Your task to perform on an android device: move an email to a new category in the gmail app Image 0: 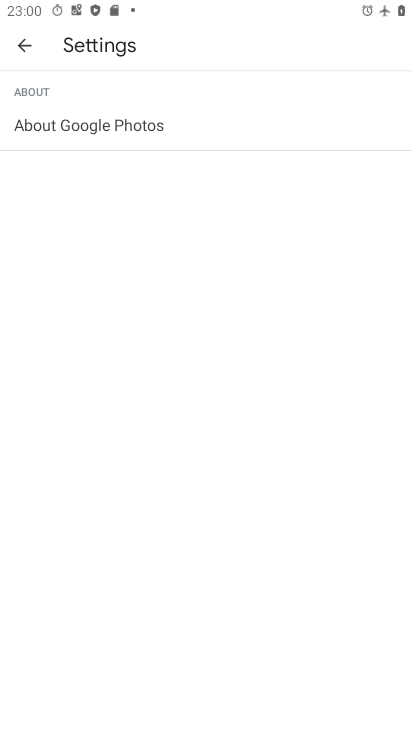
Step 0: press back button
Your task to perform on an android device: move an email to a new category in the gmail app Image 1: 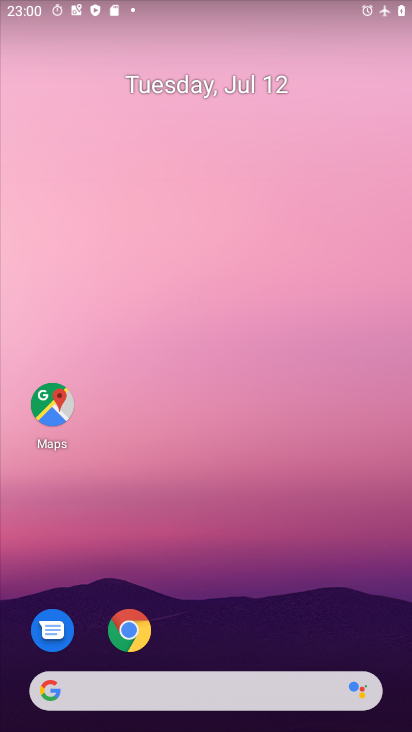
Step 1: drag from (156, 618) to (264, 39)
Your task to perform on an android device: move an email to a new category in the gmail app Image 2: 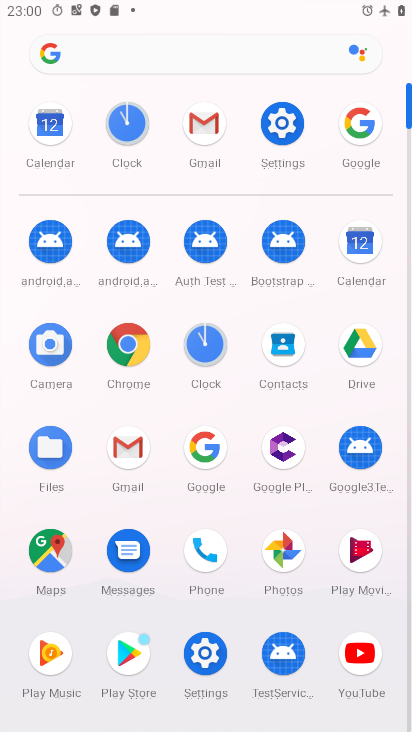
Step 2: click (212, 117)
Your task to perform on an android device: move an email to a new category in the gmail app Image 3: 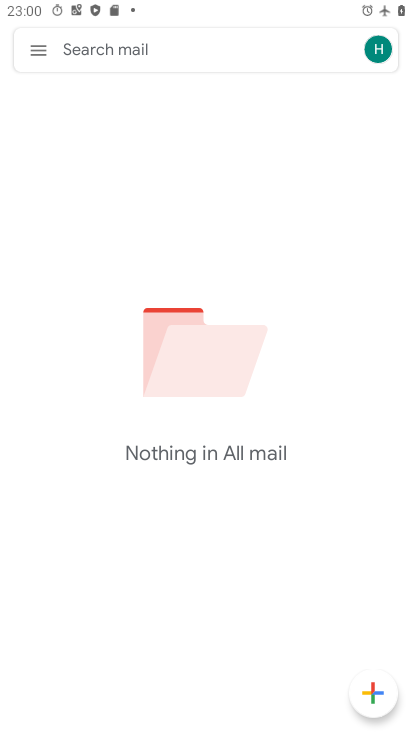
Step 3: click (38, 51)
Your task to perform on an android device: move an email to a new category in the gmail app Image 4: 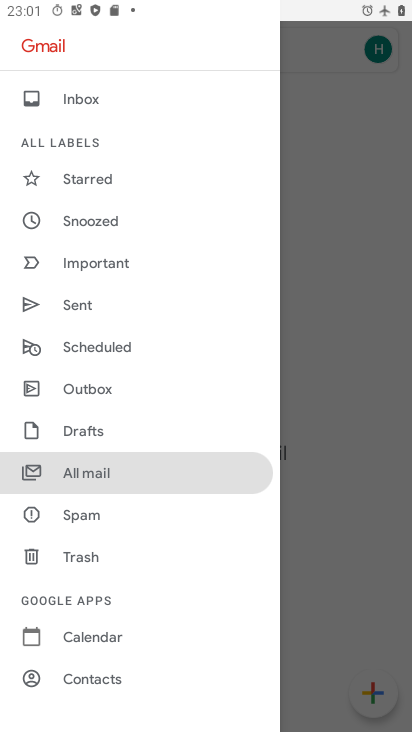
Step 4: click (98, 466)
Your task to perform on an android device: move an email to a new category in the gmail app Image 5: 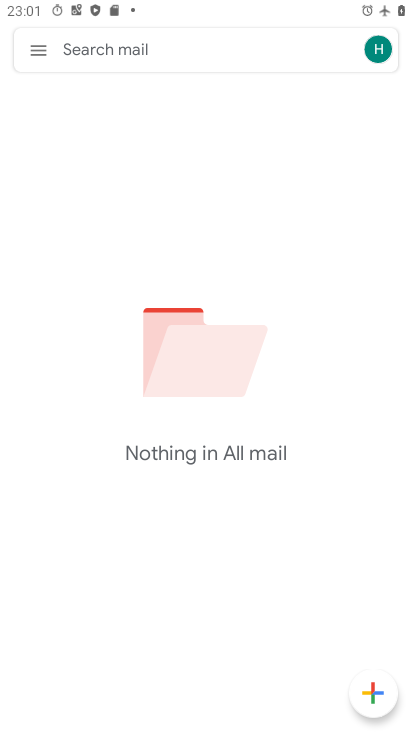
Step 5: task complete